Your task to perform on an android device: see creations saved in the google photos Image 0: 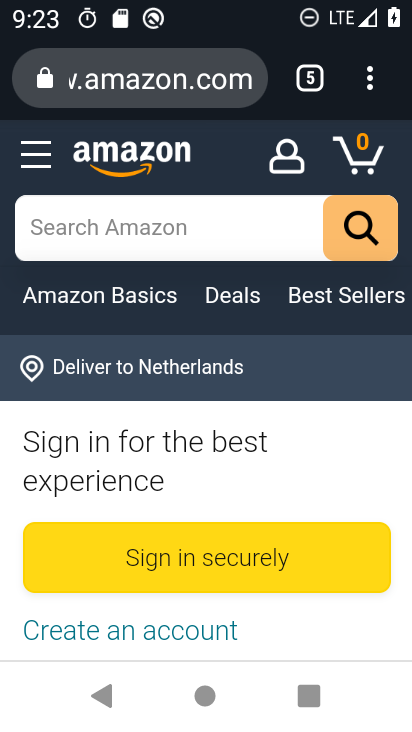
Step 0: press back button
Your task to perform on an android device: see creations saved in the google photos Image 1: 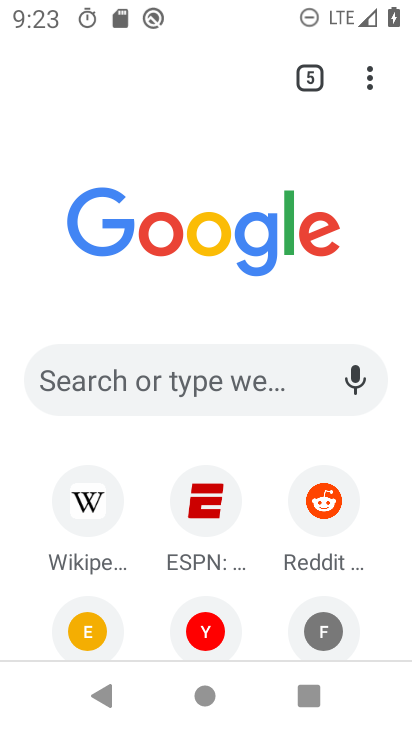
Step 1: press back button
Your task to perform on an android device: see creations saved in the google photos Image 2: 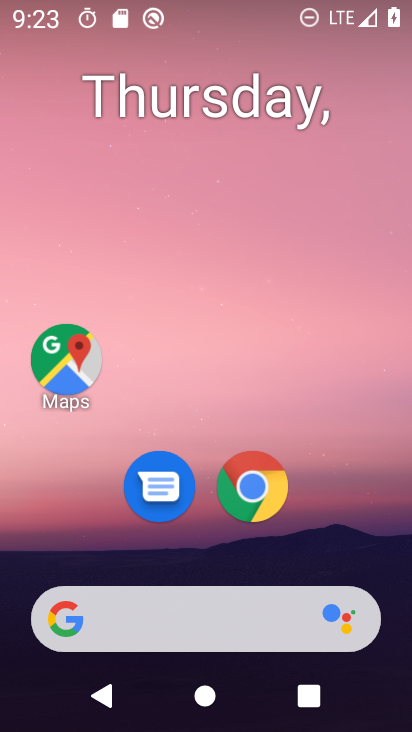
Step 2: drag from (122, 557) to (268, 91)
Your task to perform on an android device: see creations saved in the google photos Image 3: 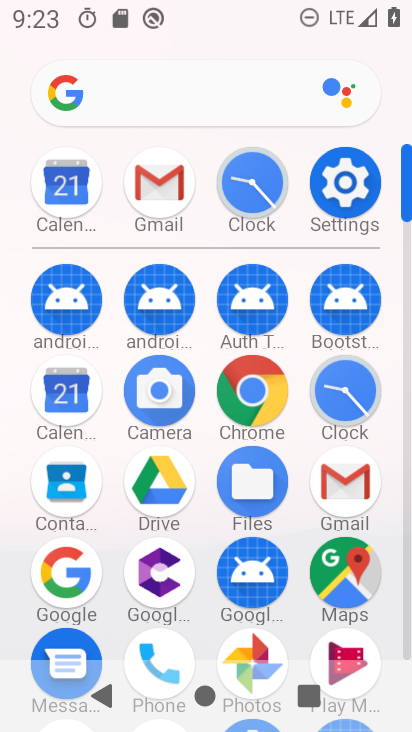
Step 3: click (249, 645)
Your task to perform on an android device: see creations saved in the google photos Image 4: 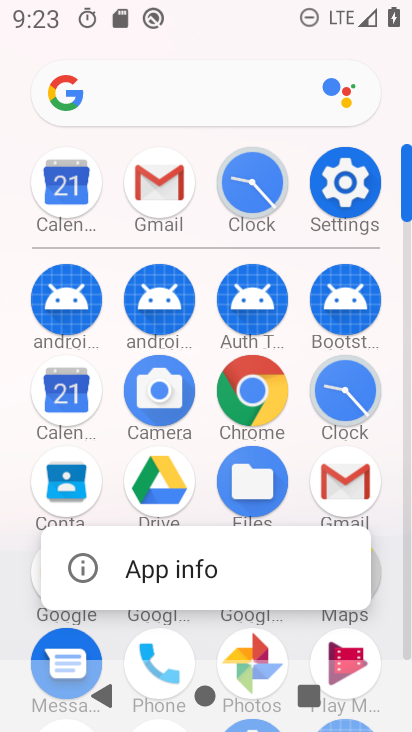
Step 4: click (249, 640)
Your task to perform on an android device: see creations saved in the google photos Image 5: 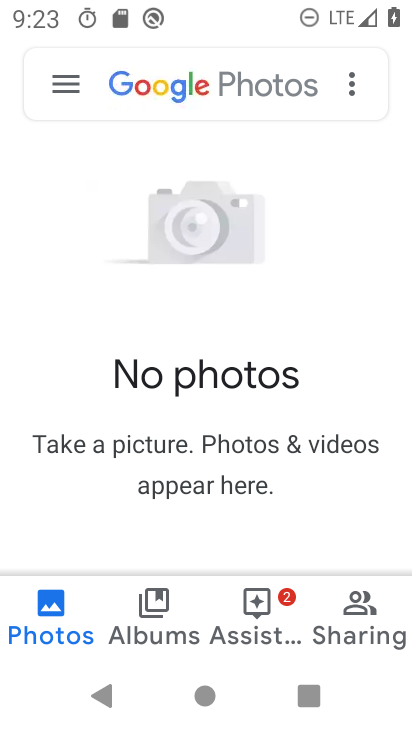
Step 5: click (72, 74)
Your task to perform on an android device: see creations saved in the google photos Image 6: 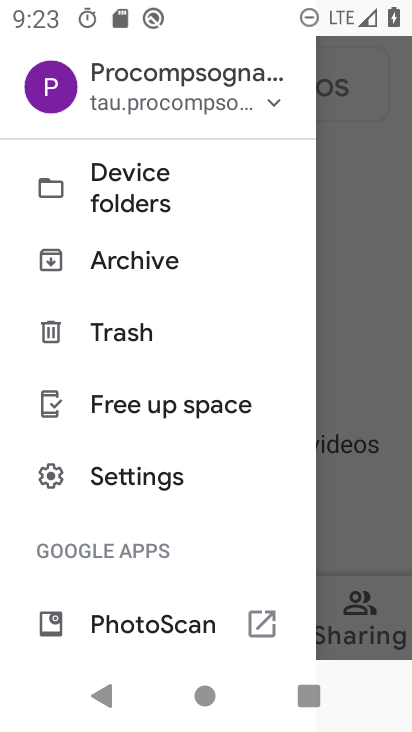
Step 6: click (141, 267)
Your task to perform on an android device: see creations saved in the google photos Image 7: 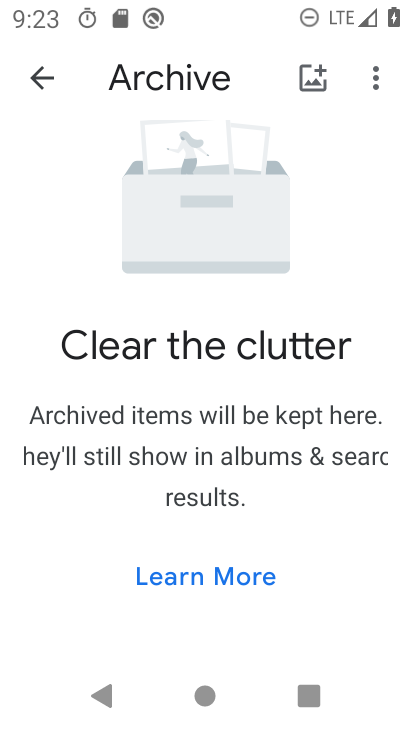
Step 7: task complete